Your task to perform on an android device: Open Youtube and go to "Your channel" Image 0: 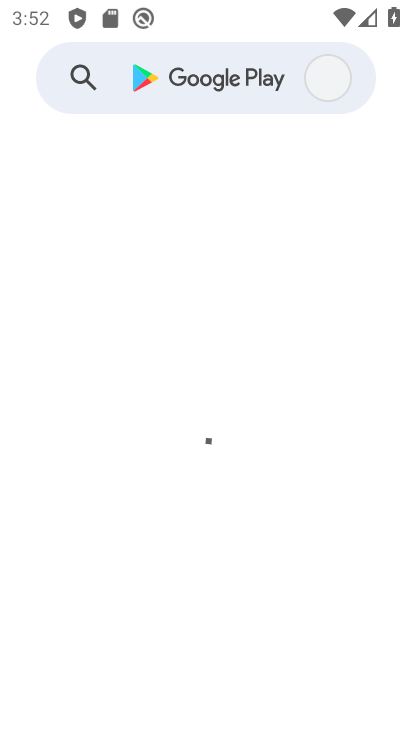
Step 0: press back button
Your task to perform on an android device: Open Youtube and go to "Your channel" Image 1: 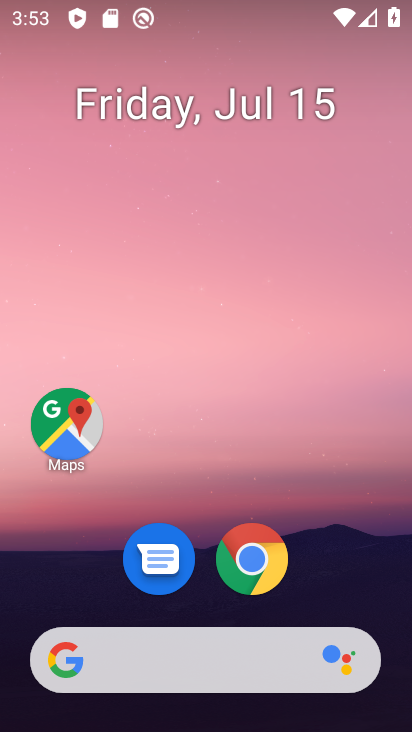
Step 1: drag from (123, 506) to (235, 16)
Your task to perform on an android device: Open Youtube and go to "Your channel" Image 2: 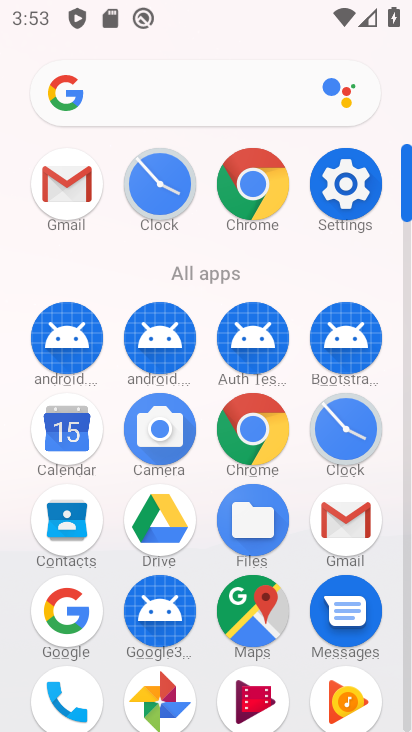
Step 2: drag from (180, 649) to (284, 52)
Your task to perform on an android device: Open Youtube and go to "Your channel" Image 3: 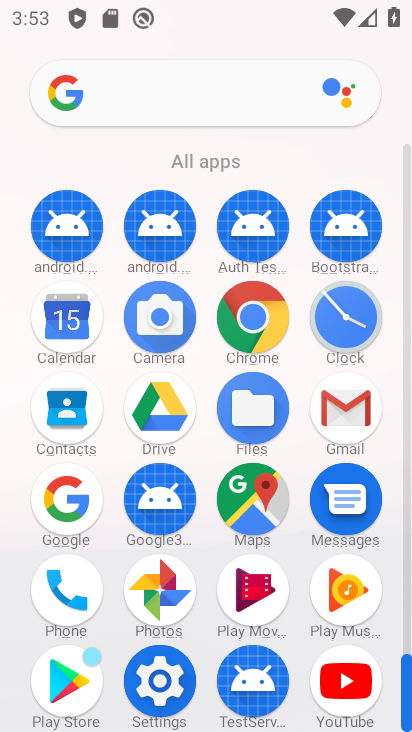
Step 3: click (338, 688)
Your task to perform on an android device: Open Youtube and go to "Your channel" Image 4: 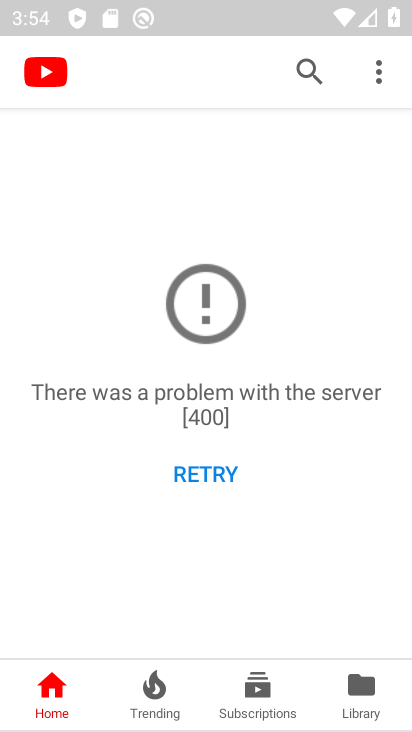
Step 4: press back button
Your task to perform on an android device: Open Youtube and go to "Your channel" Image 5: 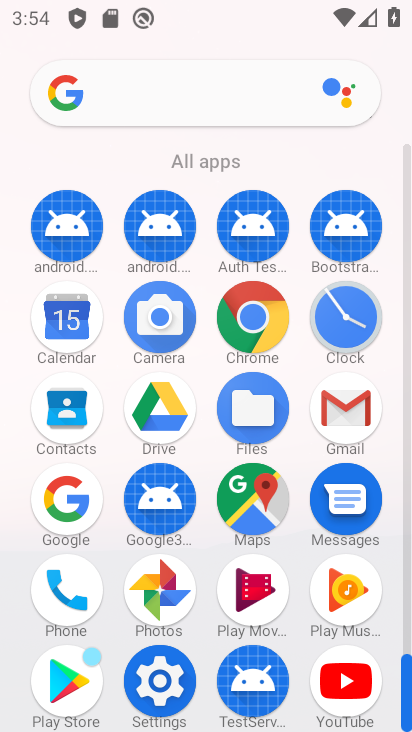
Step 5: click (339, 687)
Your task to perform on an android device: Open Youtube and go to "Your channel" Image 6: 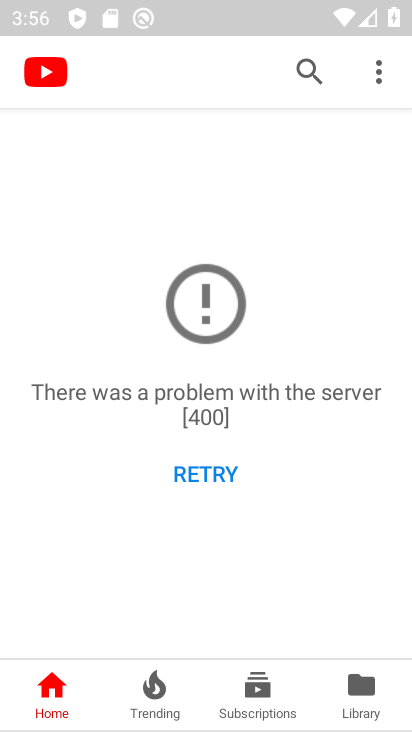
Step 6: task complete